Your task to perform on an android device: Open wifi settings Image 0: 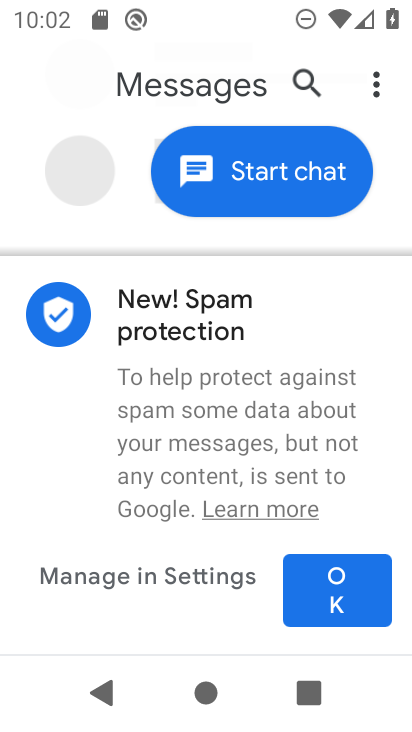
Step 0: press home button
Your task to perform on an android device: Open wifi settings Image 1: 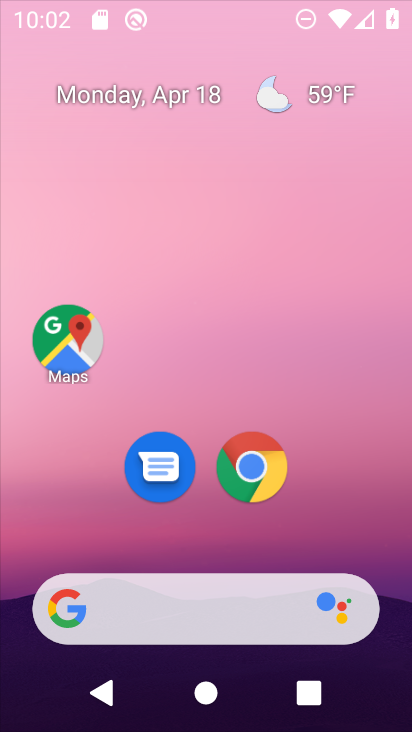
Step 1: drag from (101, 13) to (142, 491)
Your task to perform on an android device: Open wifi settings Image 2: 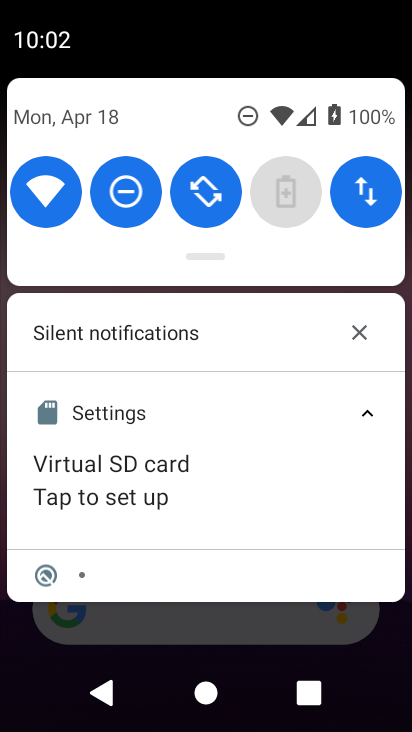
Step 2: click (47, 193)
Your task to perform on an android device: Open wifi settings Image 3: 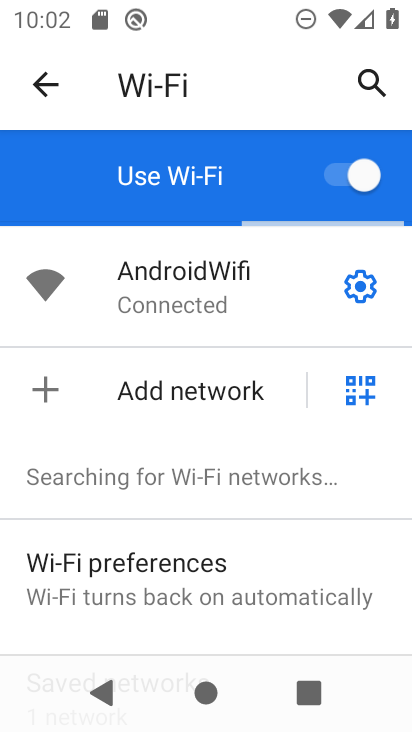
Step 3: task complete